Your task to perform on an android device: turn on translation in the chrome app Image 0: 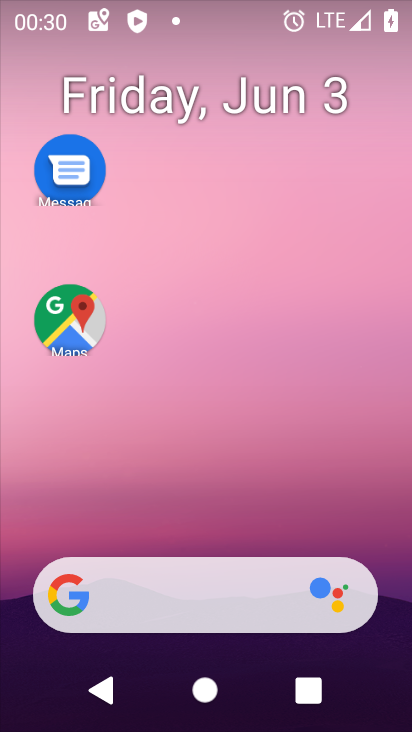
Step 0: press home button
Your task to perform on an android device: turn on translation in the chrome app Image 1: 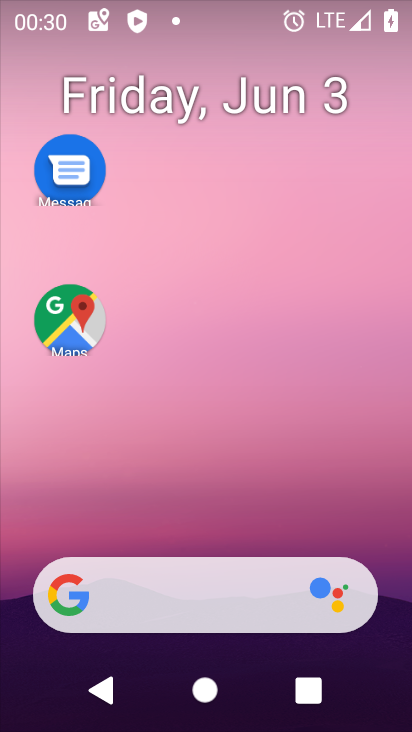
Step 1: drag from (294, 514) to (263, 118)
Your task to perform on an android device: turn on translation in the chrome app Image 2: 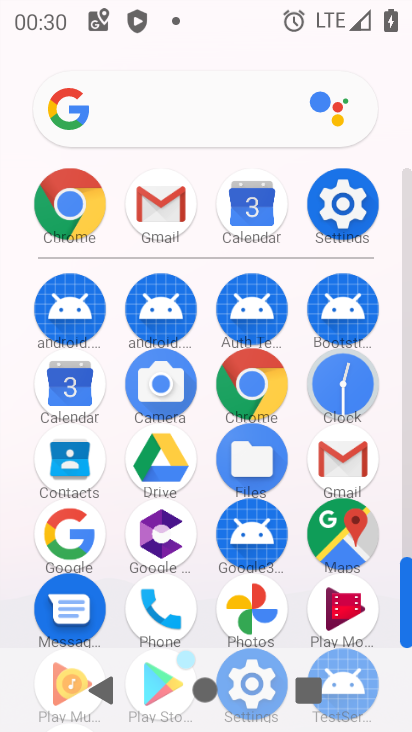
Step 2: click (90, 202)
Your task to perform on an android device: turn on translation in the chrome app Image 3: 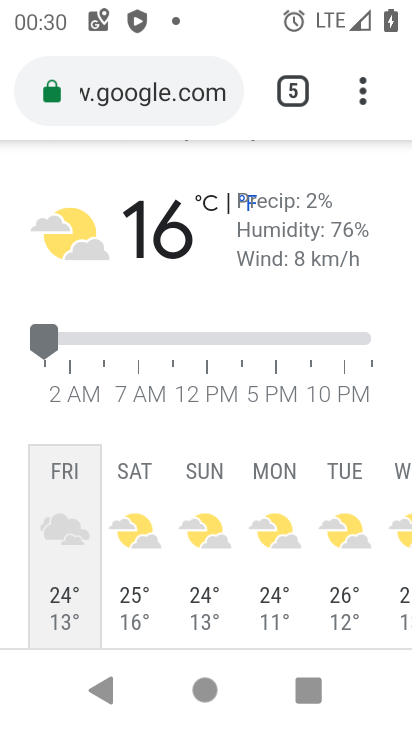
Step 3: drag from (369, 82) to (164, 474)
Your task to perform on an android device: turn on translation in the chrome app Image 4: 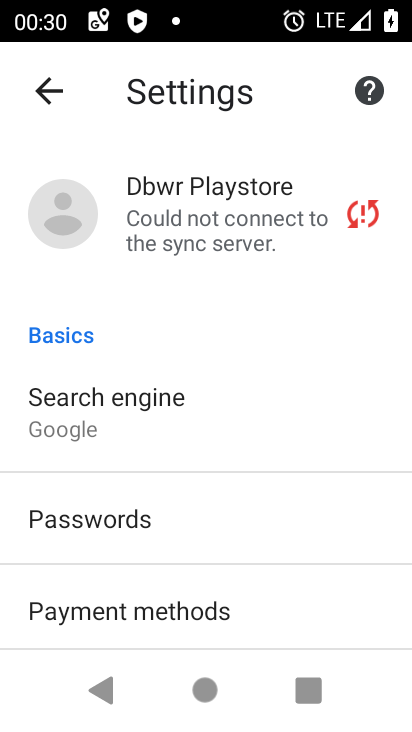
Step 4: drag from (256, 605) to (239, 290)
Your task to perform on an android device: turn on translation in the chrome app Image 5: 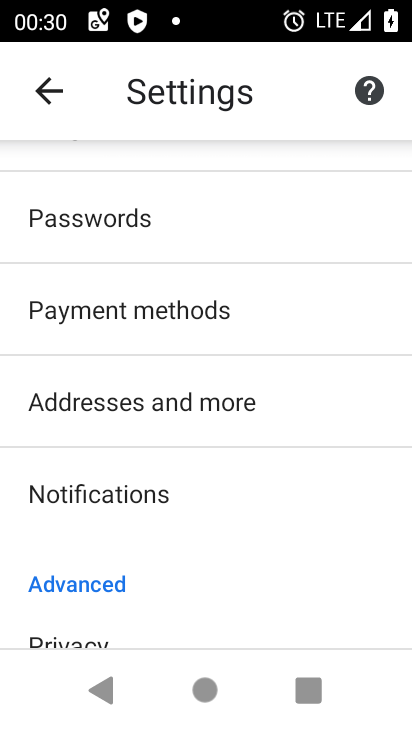
Step 5: drag from (260, 579) to (235, 274)
Your task to perform on an android device: turn on translation in the chrome app Image 6: 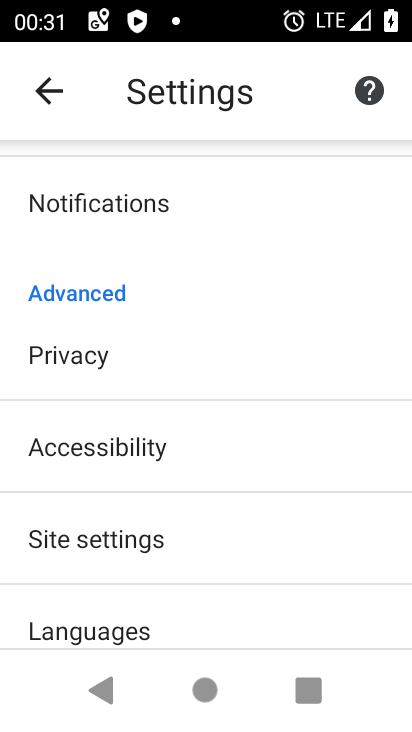
Step 6: click (170, 603)
Your task to perform on an android device: turn on translation in the chrome app Image 7: 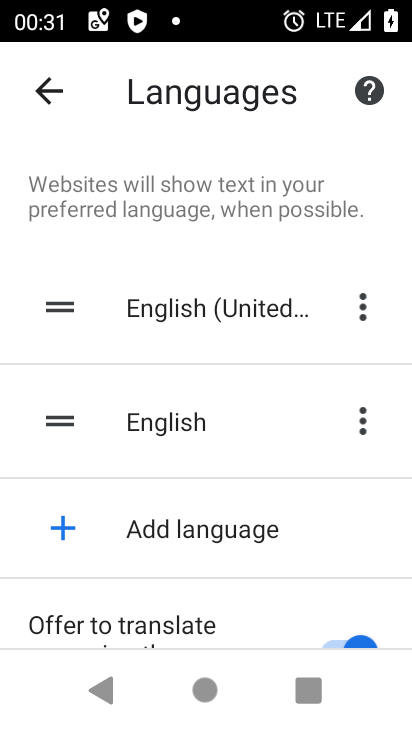
Step 7: task complete